Your task to perform on an android device: Check the weather Image 0: 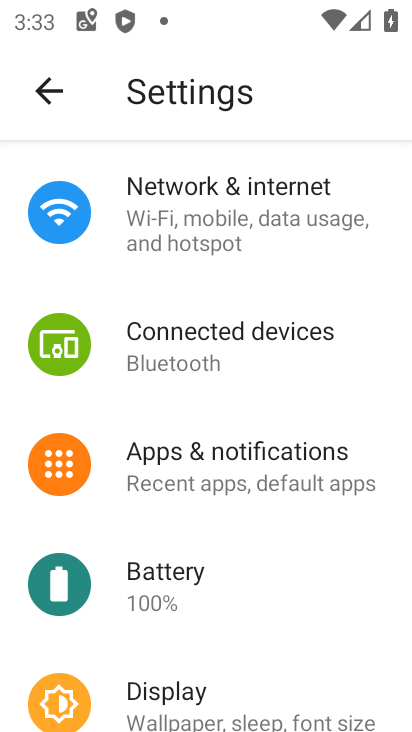
Step 0: press home button
Your task to perform on an android device: Check the weather Image 1: 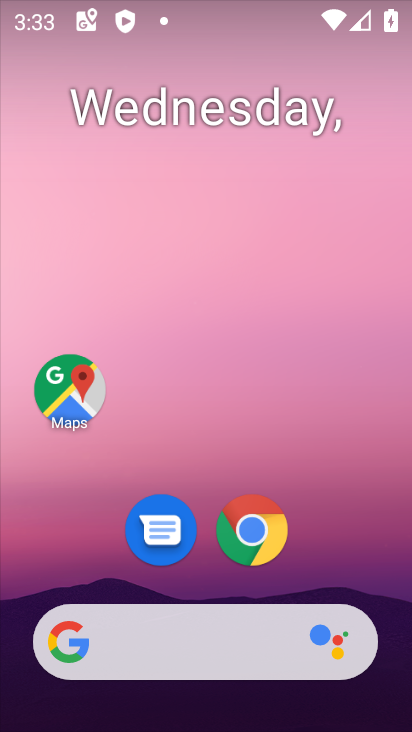
Step 1: drag from (350, 545) to (358, 161)
Your task to perform on an android device: Check the weather Image 2: 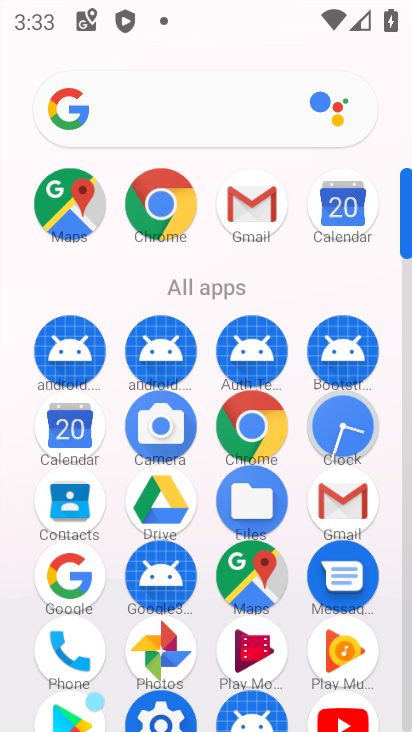
Step 2: click (249, 430)
Your task to perform on an android device: Check the weather Image 3: 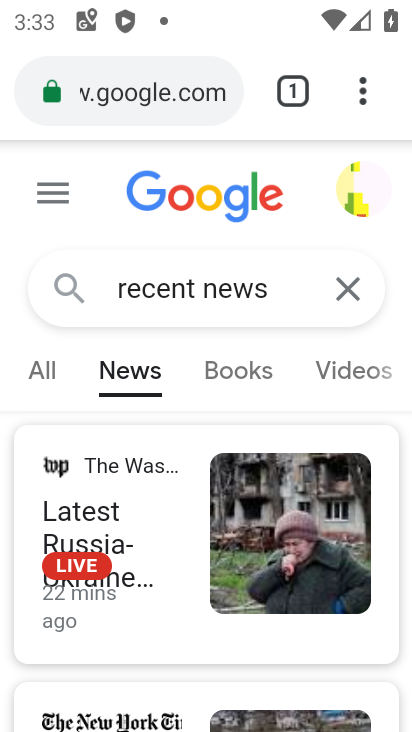
Step 3: click (216, 89)
Your task to perform on an android device: Check the weather Image 4: 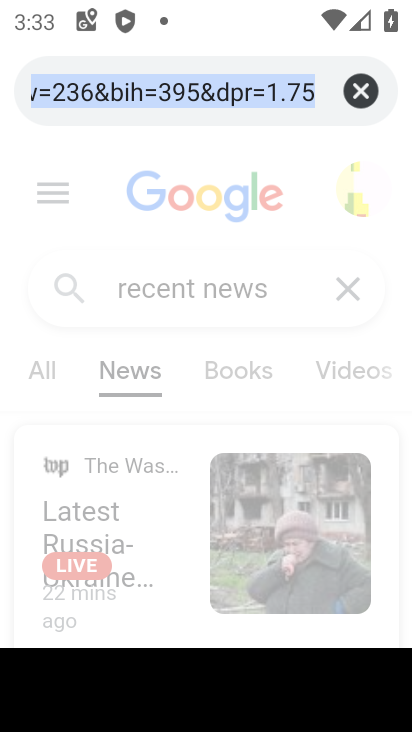
Step 4: click (351, 91)
Your task to perform on an android device: Check the weather Image 5: 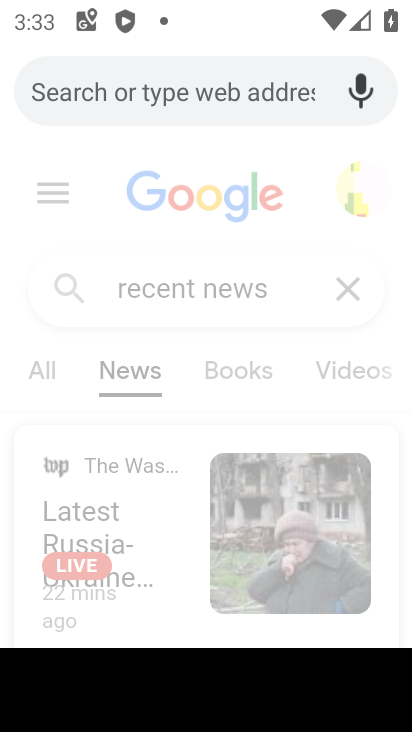
Step 5: type "weather"
Your task to perform on an android device: Check the weather Image 6: 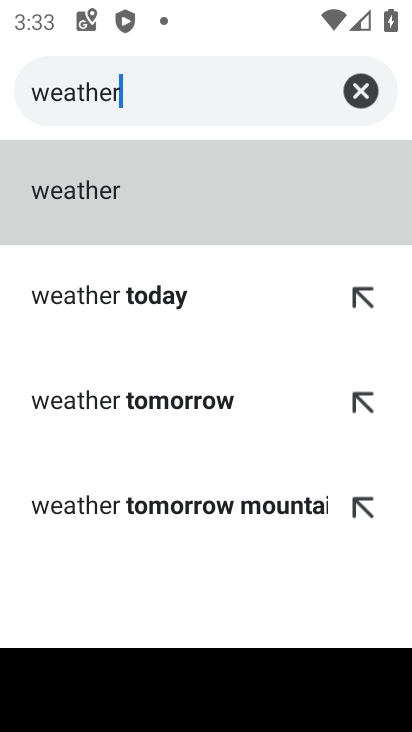
Step 6: click (92, 196)
Your task to perform on an android device: Check the weather Image 7: 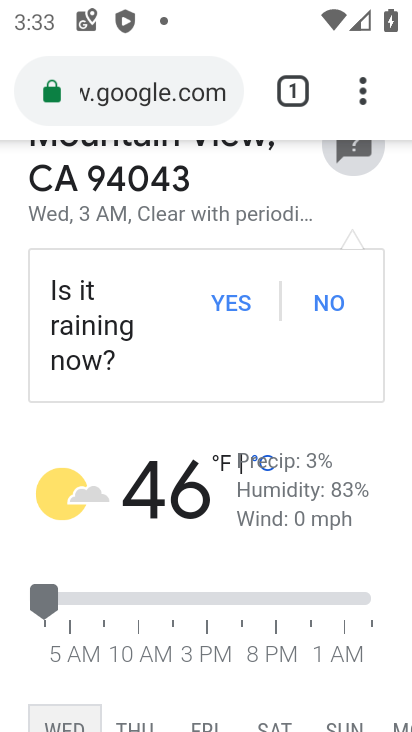
Step 7: task complete